Your task to perform on an android device: Open Chrome and go to the settings page Image 0: 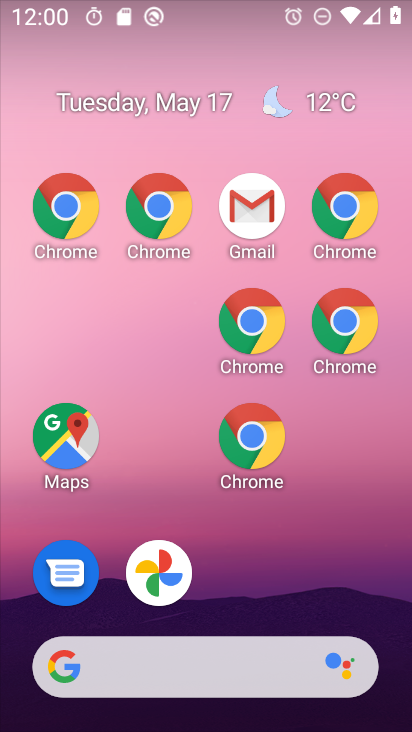
Step 0: drag from (337, 685) to (226, 262)
Your task to perform on an android device: Open Chrome and go to the settings page Image 1: 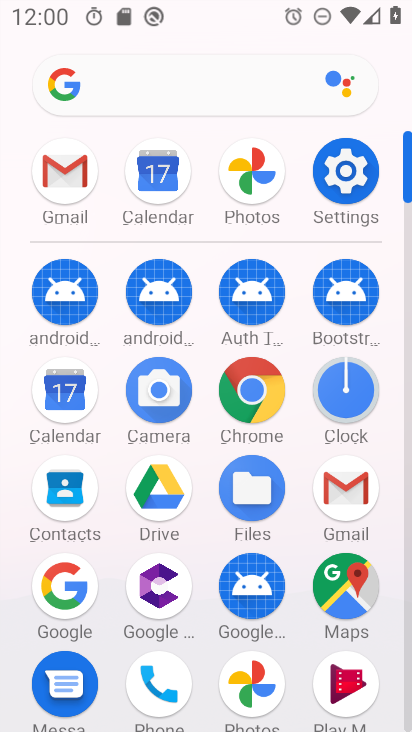
Step 1: click (353, 160)
Your task to perform on an android device: Open Chrome and go to the settings page Image 2: 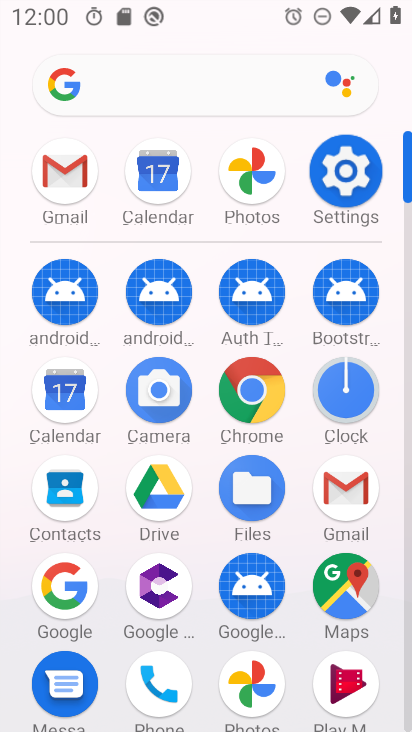
Step 2: click (352, 163)
Your task to perform on an android device: Open Chrome and go to the settings page Image 3: 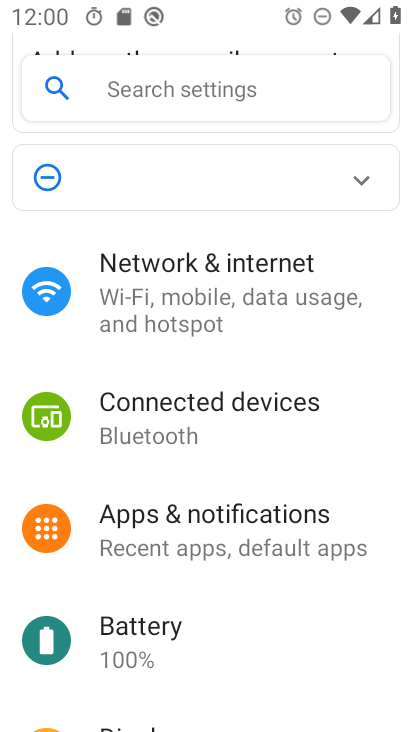
Step 3: press back button
Your task to perform on an android device: Open Chrome and go to the settings page Image 4: 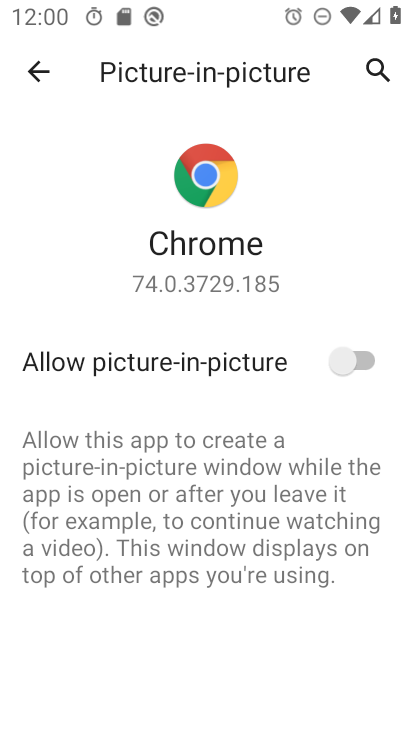
Step 4: click (42, 71)
Your task to perform on an android device: Open Chrome and go to the settings page Image 5: 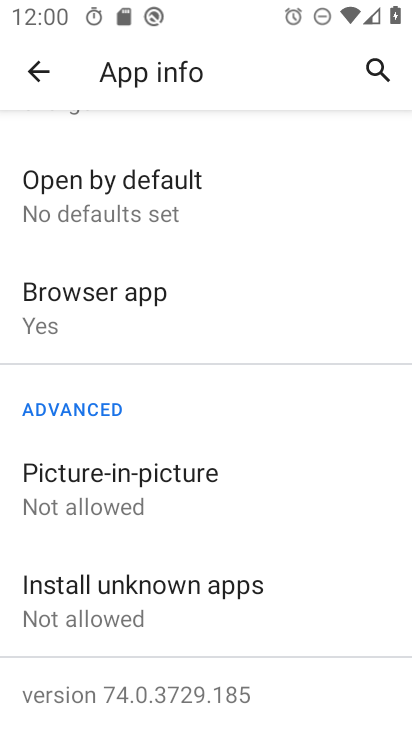
Step 5: click (46, 74)
Your task to perform on an android device: Open Chrome and go to the settings page Image 6: 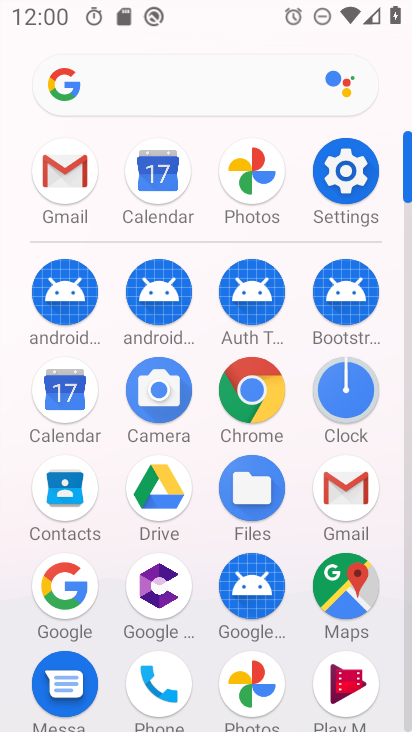
Step 6: click (249, 387)
Your task to perform on an android device: Open Chrome and go to the settings page Image 7: 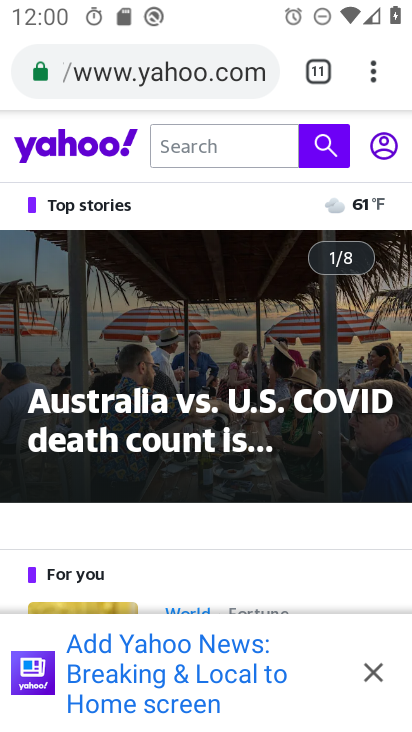
Step 7: drag from (376, 77) to (115, 568)
Your task to perform on an android device: Open Chrome and go to the settings page Image 8: 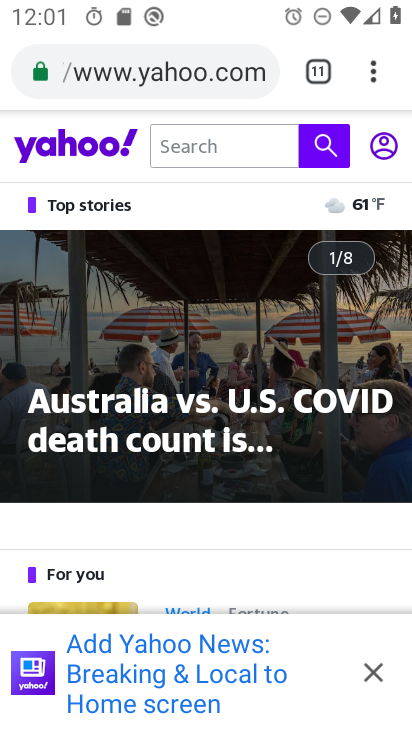
Step 8: click (115, 568)
Your task to perform on an android device: Open Chrome and go to the settings page Image 9: 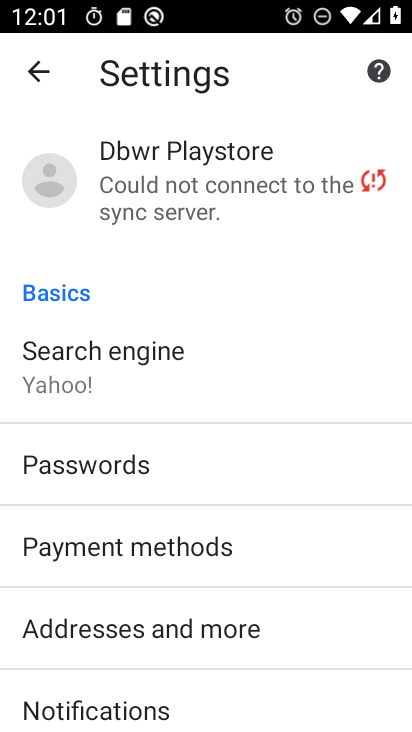
Step 9: drag from (169, 496) to (127, 112)
Your task to perform on an android device: Open Chrome and go to the settings page Image 10: 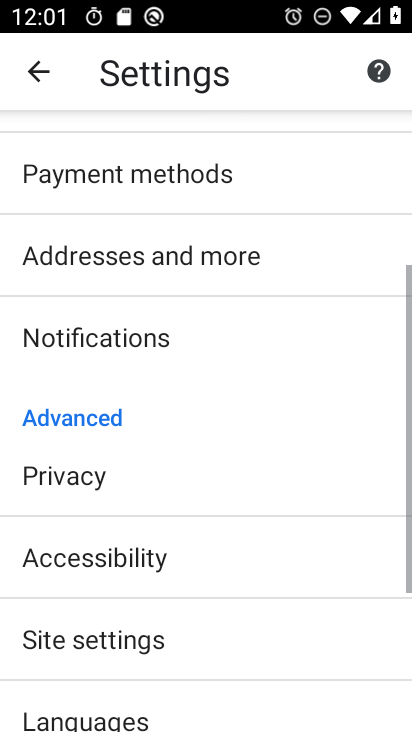
Step 10: drag from (178, 389) to (178, 105)
Your task to perform on an android device: Open Chrome and go to the settings page Image 11: 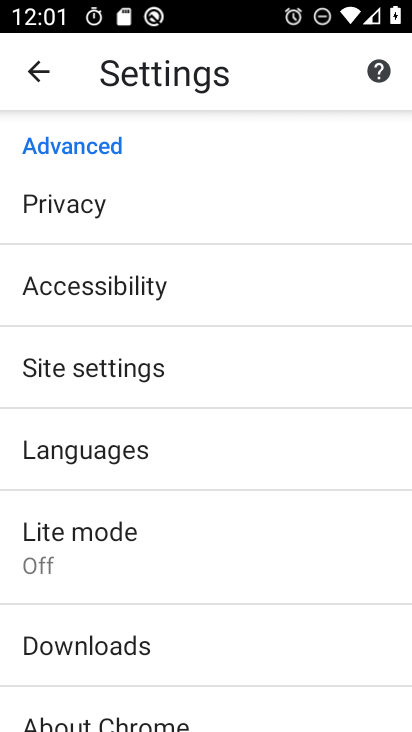
Step 11: click (90, 366)
Your task to perform on an android device: Open Chrome and go to the settings page Image 12: 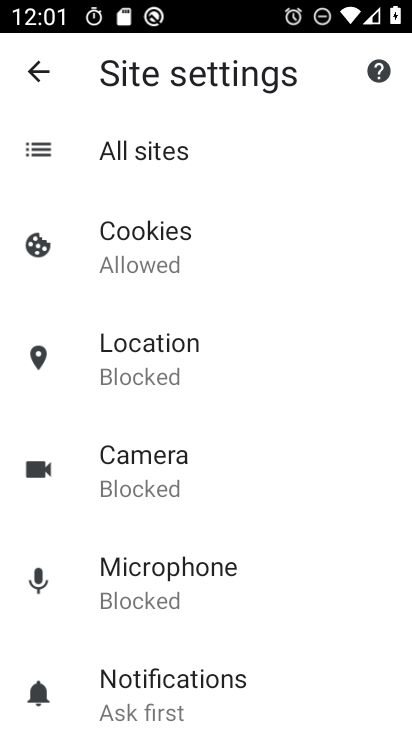
Step 12: click (39, 61)
Your task to perform on an android device: Open Chrome and go to the settings page Image 13: 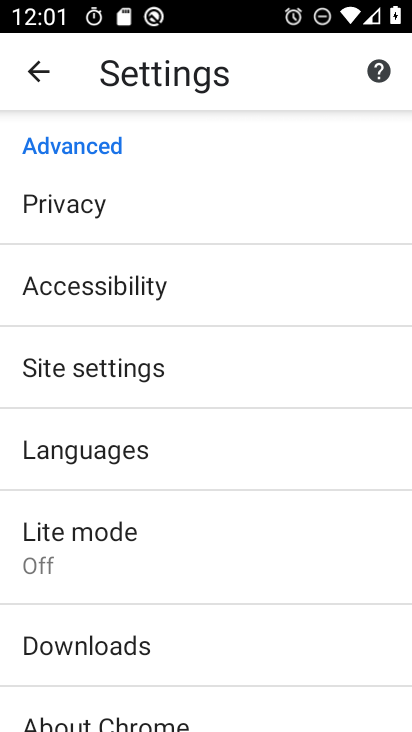
Step 13: task complete